Your task to perform on an android device: When is my next meeting? Image 0: 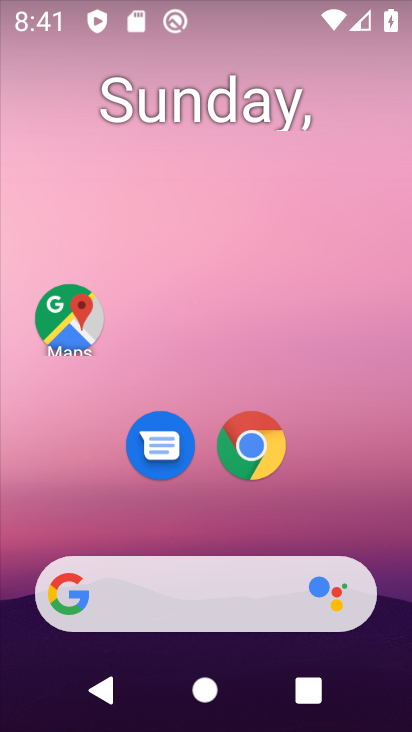
Step 0: drag from (343, 526) to (344, 98)
Your task to perform on an android device: When is my next meeting? Image 1: 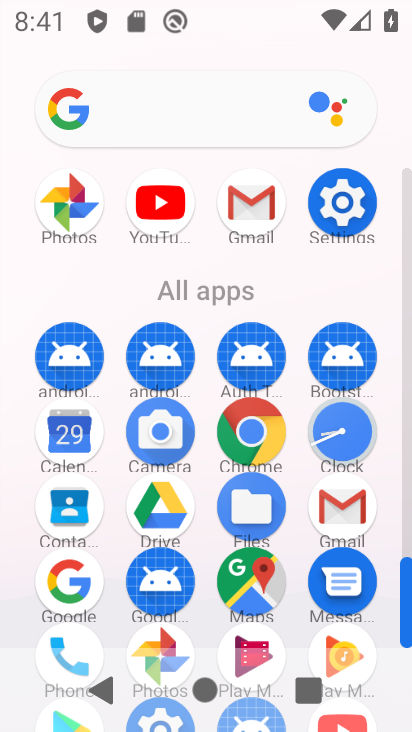
Step 1: click (68, 431)
Your task to perform on an android device: When is my next meeting? Image 2: 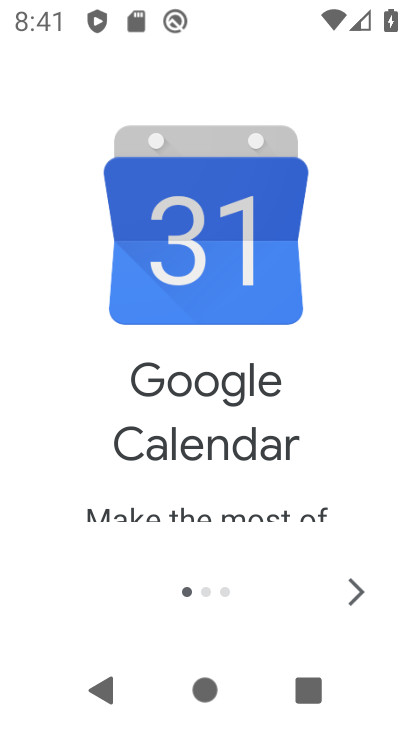
Step 2: click (371, 594)
Your task to perform on an android device: When is my next meeting? Image 3: 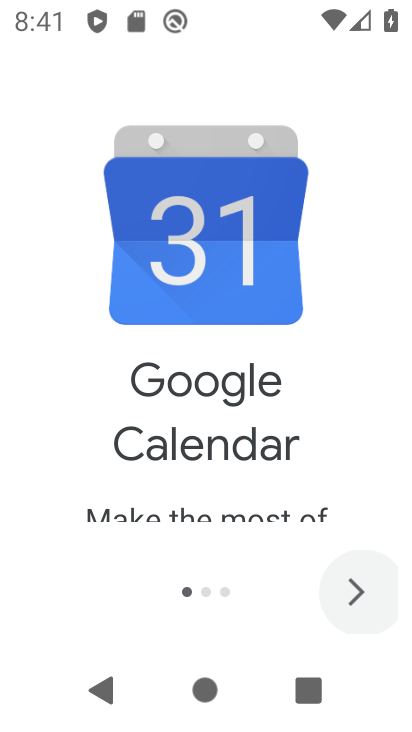
Step 3: click (370, 593)
Your task to perform on an android device: When is my next meeting? Image 4: 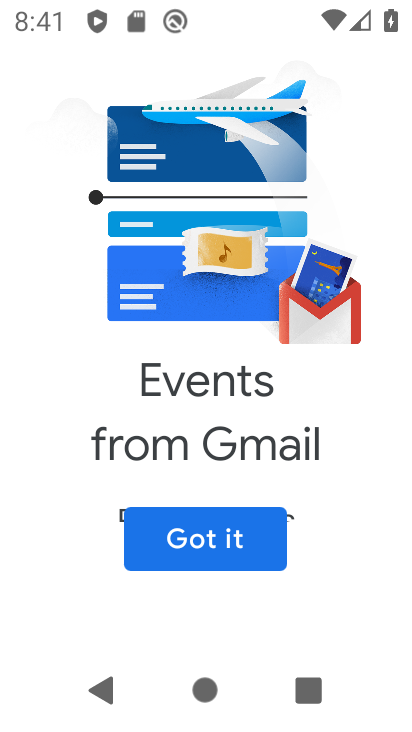
Step 4: click (201, 546)
Your task to perform on an android device: When is my next meeting? Image 5: 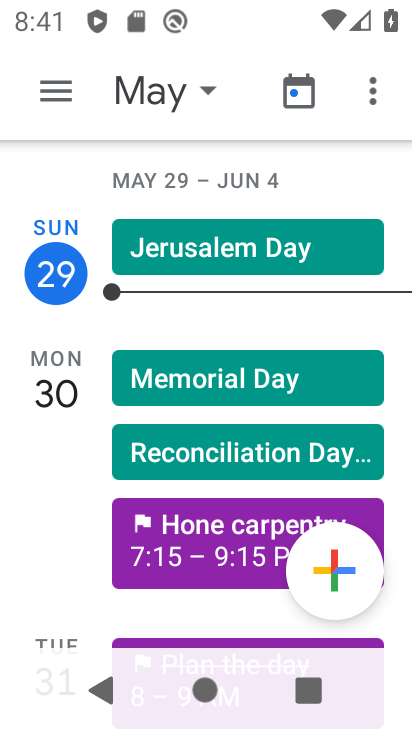
Step 5: click (67, 82)
Your task to perform on an android device: When is my next meeting? Image 6: 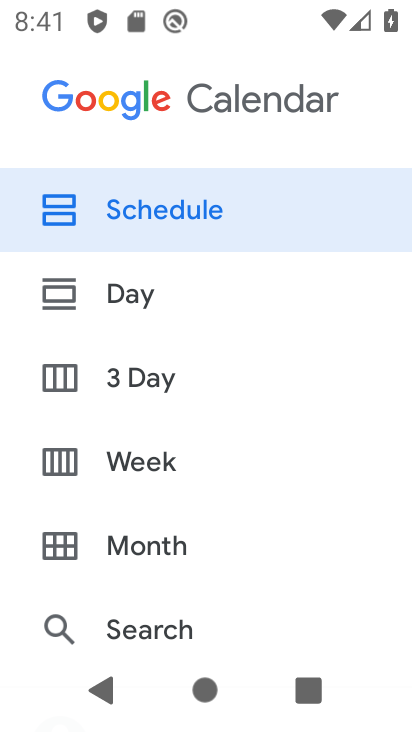
Step 6: click (300, 203)
Your task to perform on an android device: When is my next meeting? Image 7: 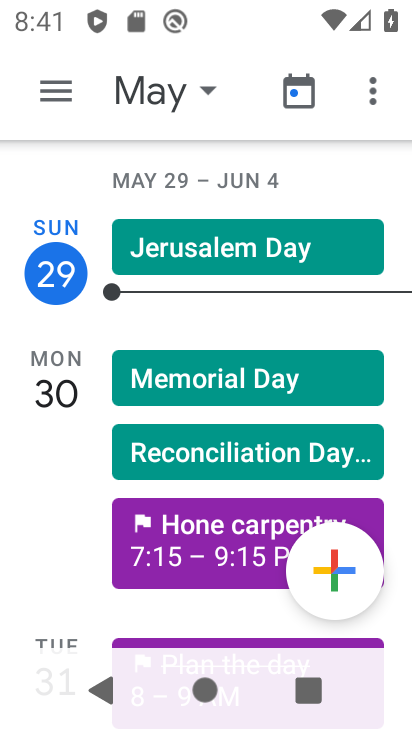
Step 7: task complete